Your task to perform on an android device: Open network settings Image 0: 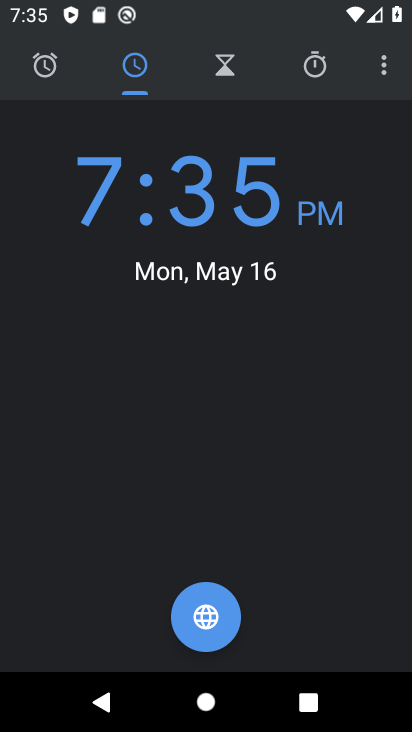
Step 0: drag from (313, 13) to (266, 453)
Your task to perform on an android device: Open network settings Image 1: 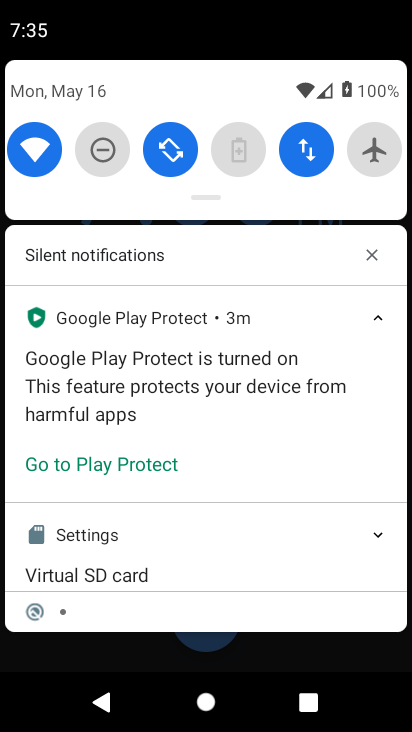
Step 1: click (318, 153)
Your task to perform on an android device: Open network settings Image 2: 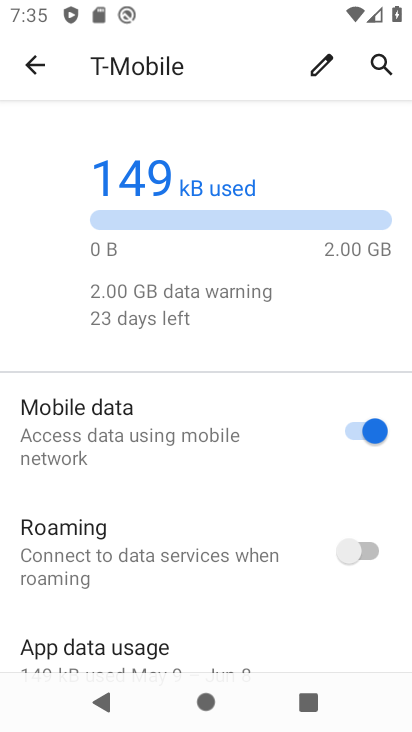
Step 2: task complete